Your task to perform on an android device: see creations saved in the google photos Image 0: 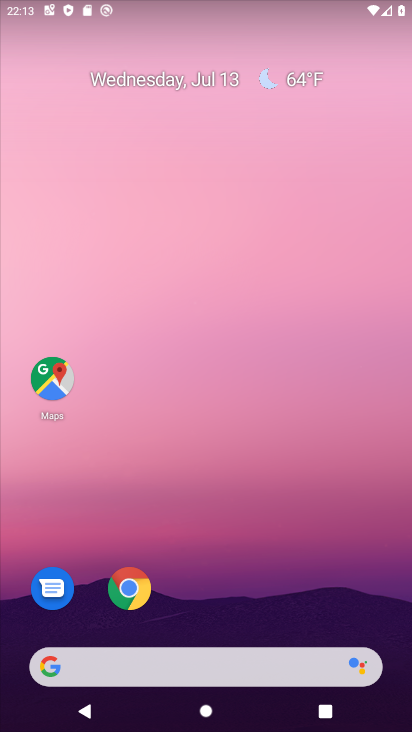
Step 0: drag from (224, 598) to (274, 86)
Your task to perform on an android device: see creations saved in the google photos Image 1: 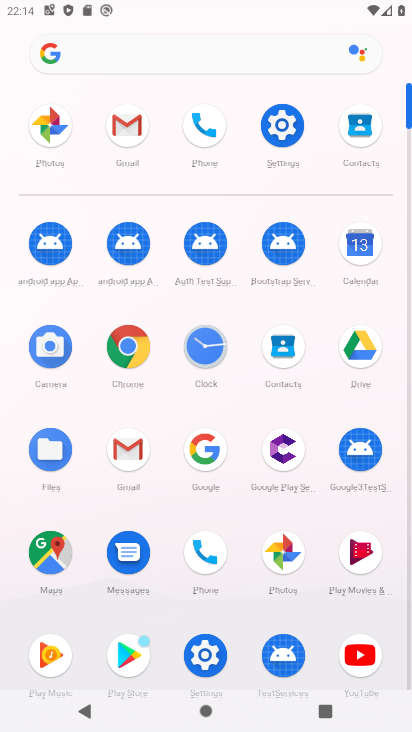
Step 1: click (271, 558)
Your task to perform on an android device: see creations saved in the google photos Image 2: 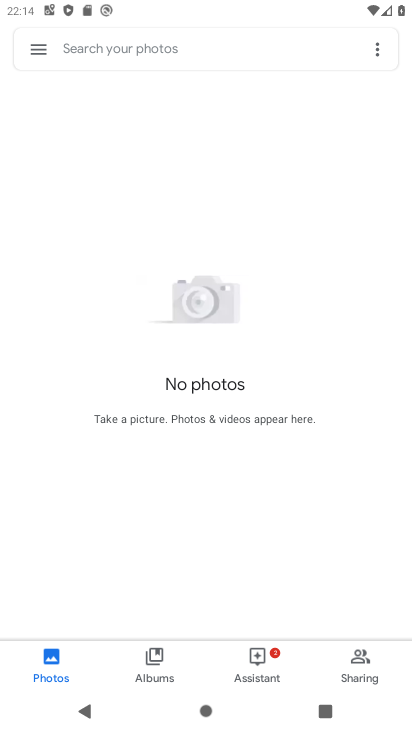
Step 2: click (21, 48)
Your task to perform on an android device: see creations saved in the google photos Image 3: 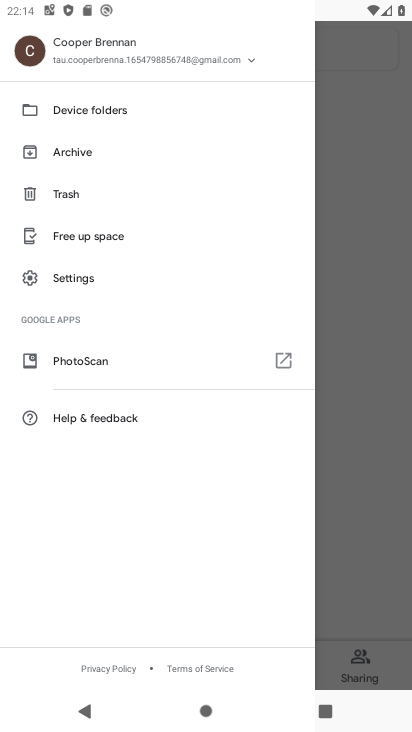
Step 3: click (101, 148)
Your task to perform on an android device: see creations saved in the google photos Image 4: 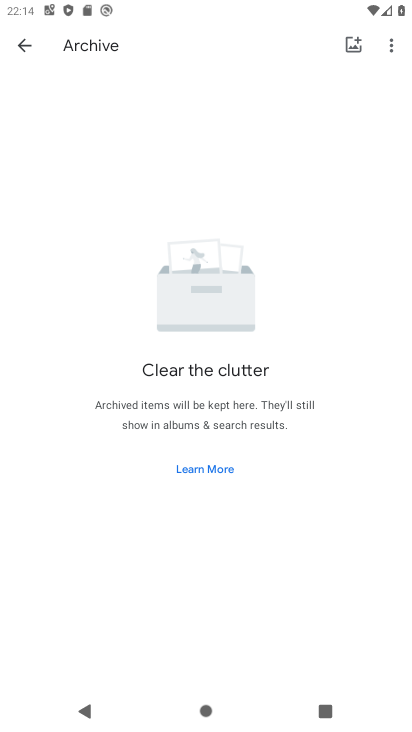
Step 4: task complete